Your task to perform on an android device: set the stopwatch Image 0: 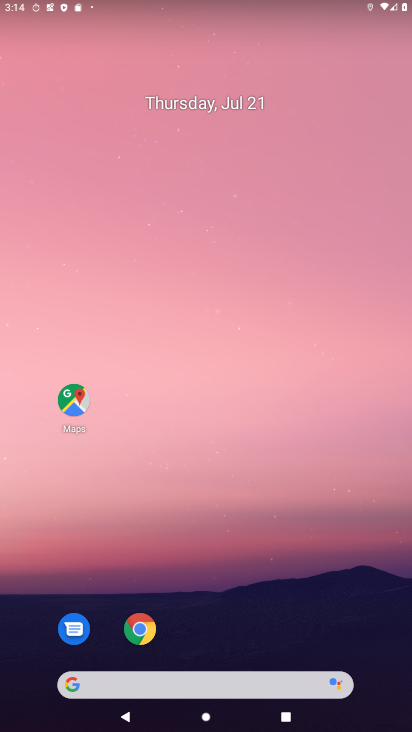
Step 0: drag from (222, 628) to (284, 3)
Your task to perform on an android device: set the stopwatch Image 1: 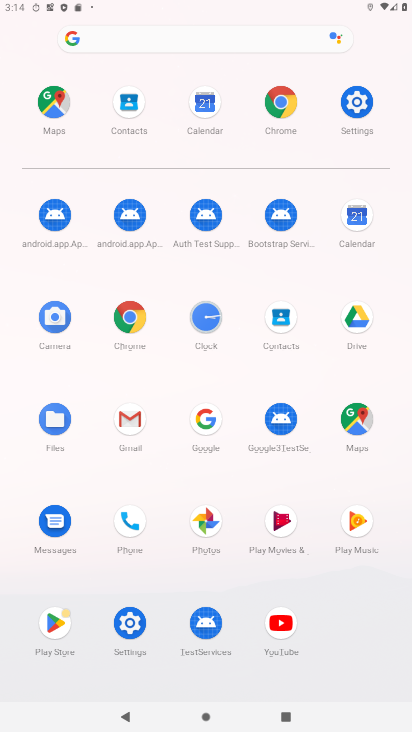
Step 1: click (213, 328)
Your task to perform on an android device: set the stopwatch Image 2: 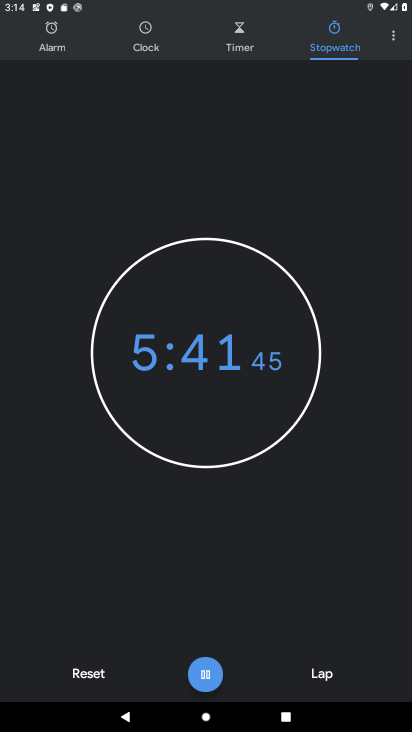
Step 2: click (104, 673)
Your task to perform on an android device: set the stopwatch Image 3: 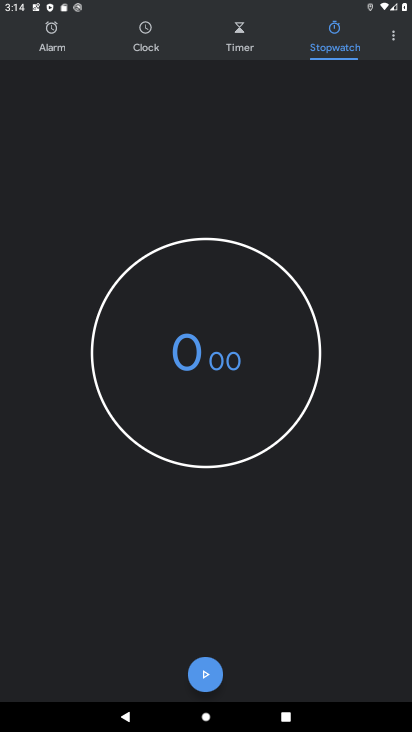
Step 3: click (216, 680)
Your task to perform on an android device: set the stopwatch Image 4: 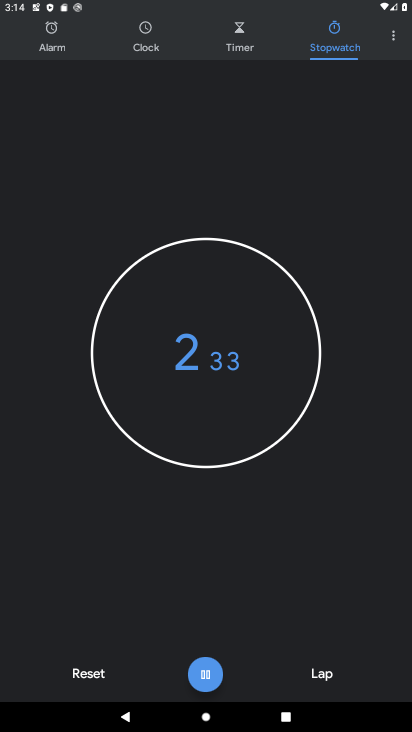
Step 4: task complete